Your task to perform on an android device: make emails show in primary in the gmail app Image 0: 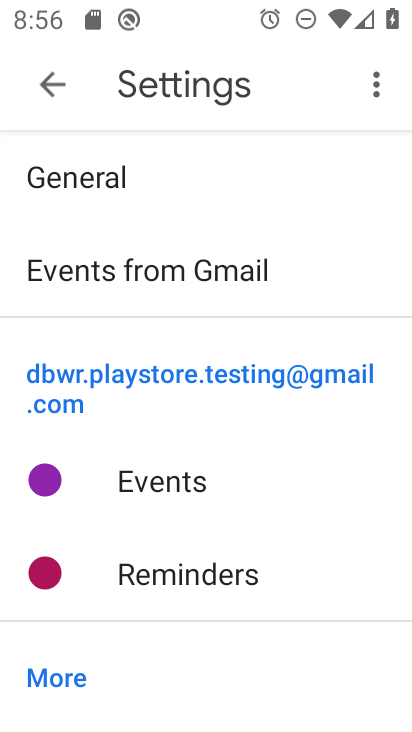
Step 0: press home button
Your task to perform on an android device: make emails show in primary in the gmail app Image 1: 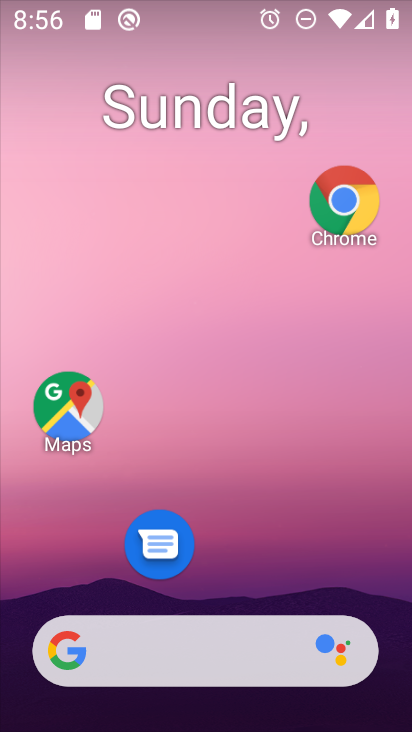
Step 1: drag from (277, 577) to (238, 35)
Your task to perform on an android device: make emails show in primary in the gmail app Image 2: 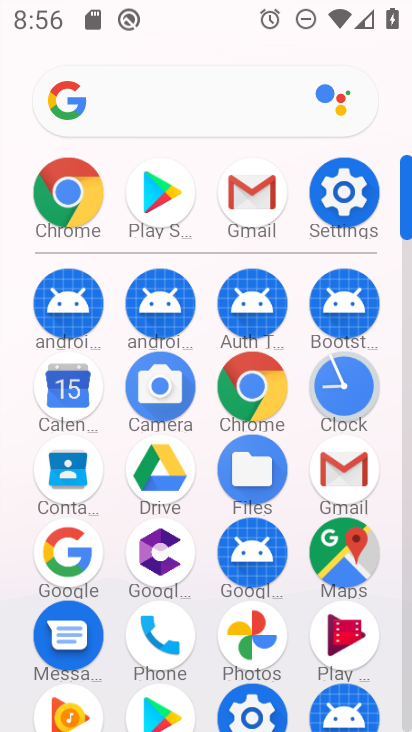
Step 2: click (338, 478)
Your task to perform on an android device: make emails show in primary in the gmail app Image 3: 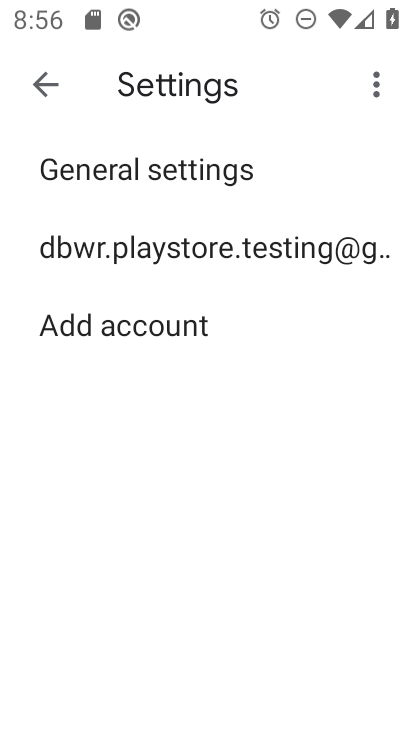
Step 3: click (266, 233)
Your task to perform on an android device: make emails show in primary in the gmail app Image 4: 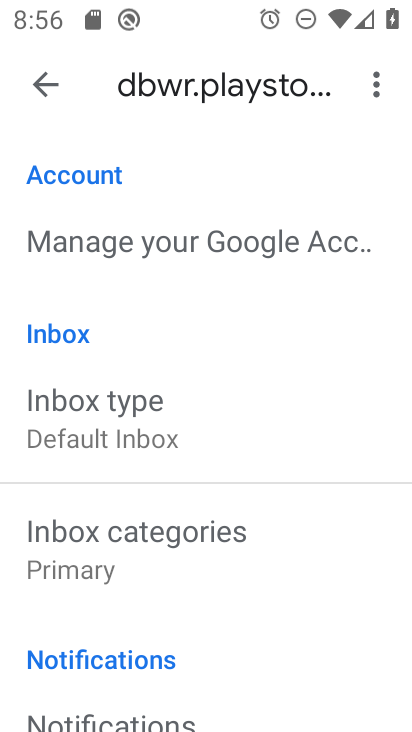
Step 4: click (195, 459)
Your task to perform on an android device: make emails show in primary in the gmail app Image 5: 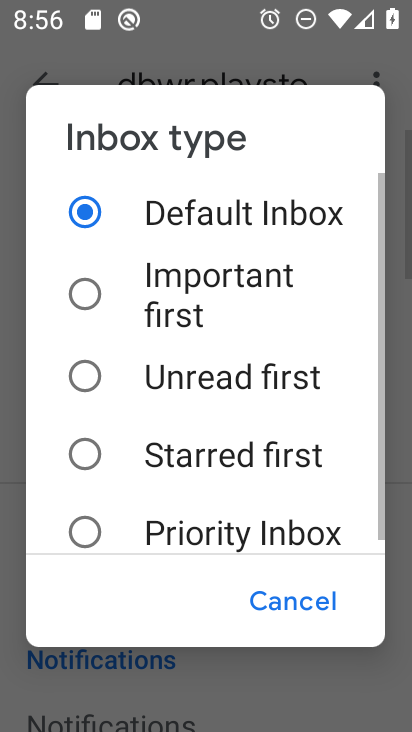
Step 5: click (250, 208)
Your task to perform on an android device: make emails show in primary in the gmail app Image 6: 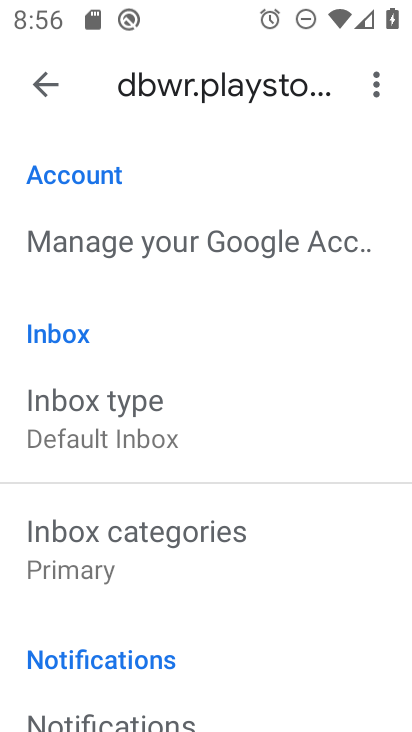
Step 6: task complete